Your task to perform on an android device: Open Chrome and go to settings Image 0: 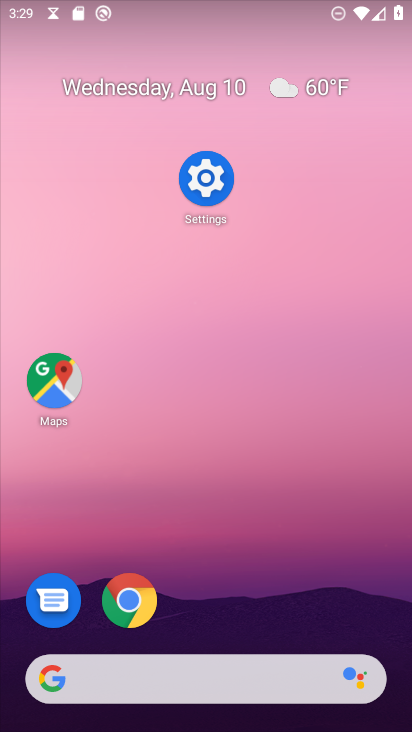
Step 0: press home button
Your task to perform on an android device: Open Chrome and go to settings Image 1: 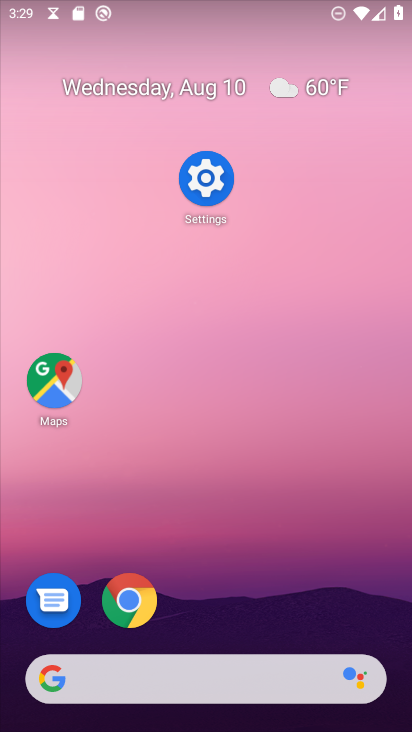
Step 1: click (126, 605)
Your task to perform on an android device: Open Chrome and go to settings Image 2: 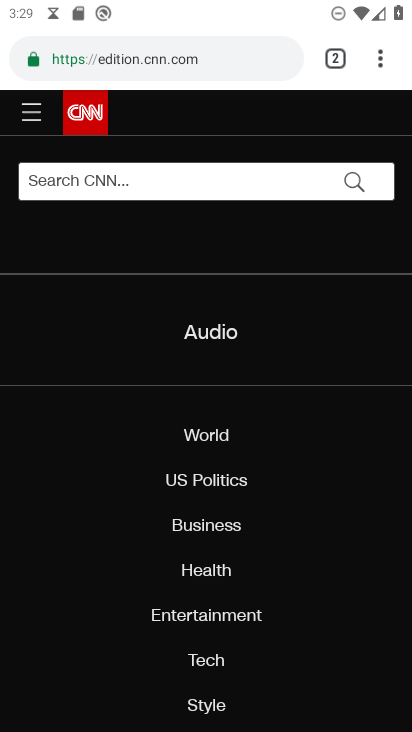
Step 2: task complete